Your task to perform on an android device: open wifi settings Image 0: 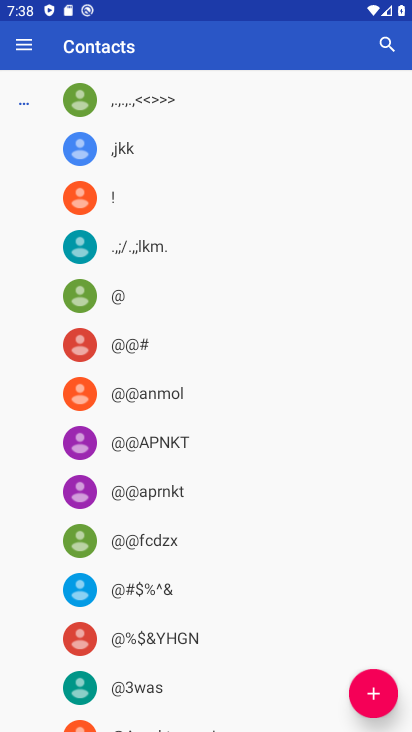
Step 0: press home button
Your task to perform on an android device: open wifi settings Image 1: 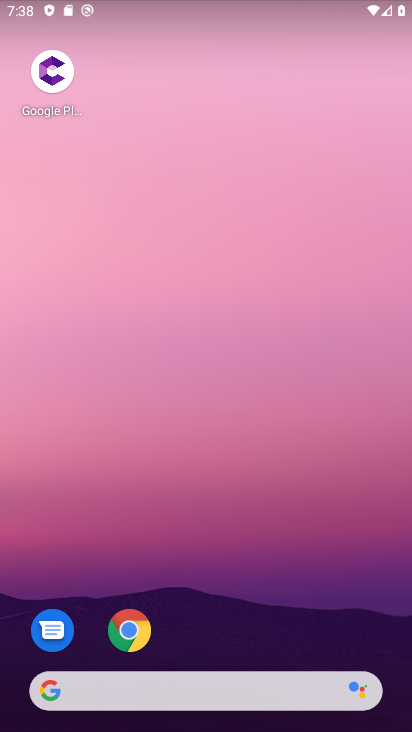
Step 1: drag from (257, 689) to (308, 177)
Your task to perform on an android device: open wifi settings Image 2: 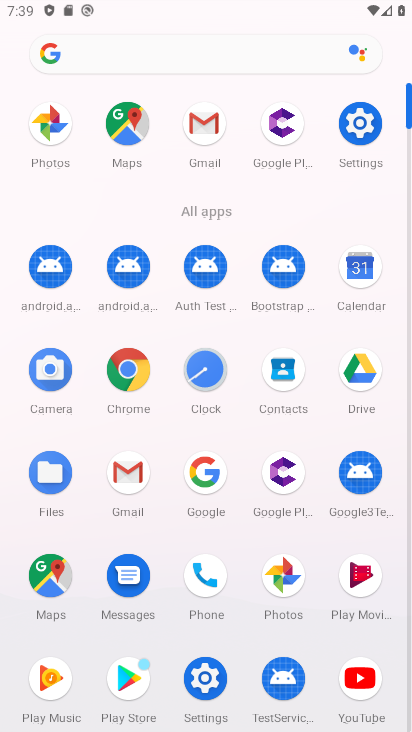
Step 2: click (366, 134)
Your task to perform on an android device: open wifi settings Image 3: 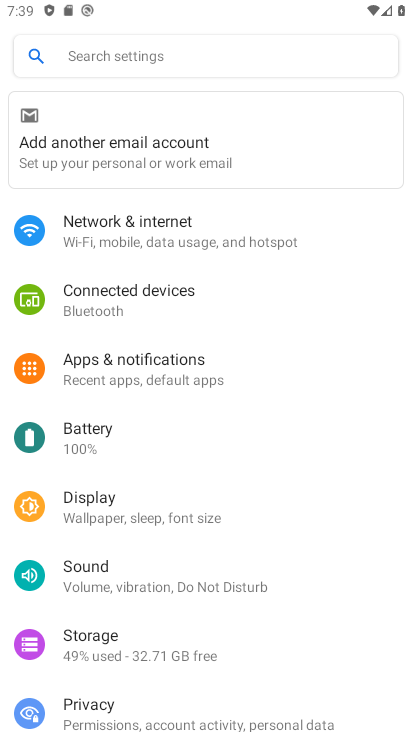
Step 3: click (200, 241)
Your task to perform on an android device: open wifi settings Image 4: 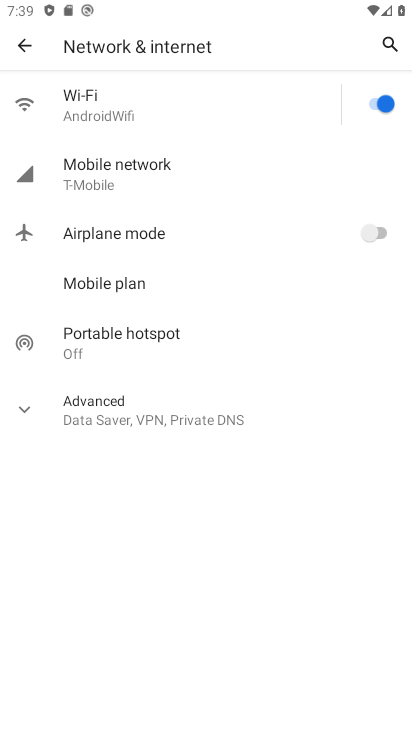
Step 4: click (169, 114)
Your task to perform on an android device: open wifi settings Image 5: 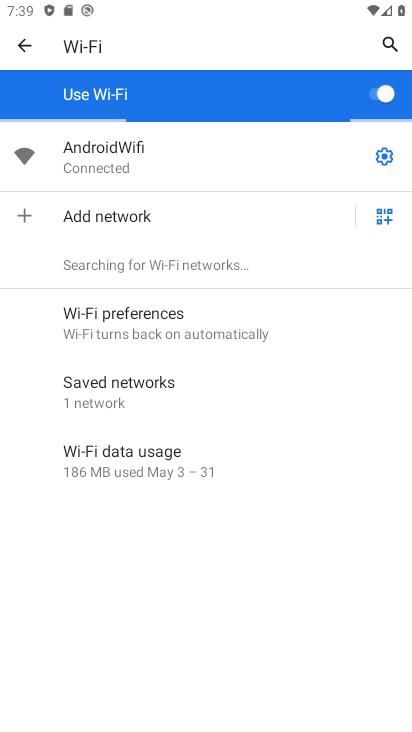
Step 5: task complete